Your task to perform on an android device: Open Chrome and go to settings Image 0: 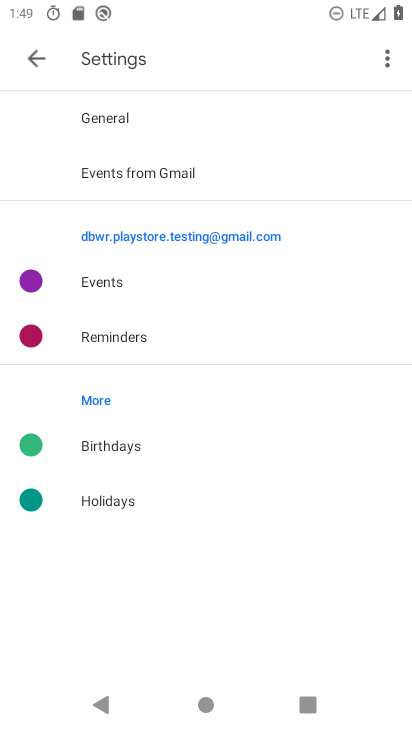
Step 0: press home button
Your task to perform on an android device: Open Chrome and go to settings Image 1: 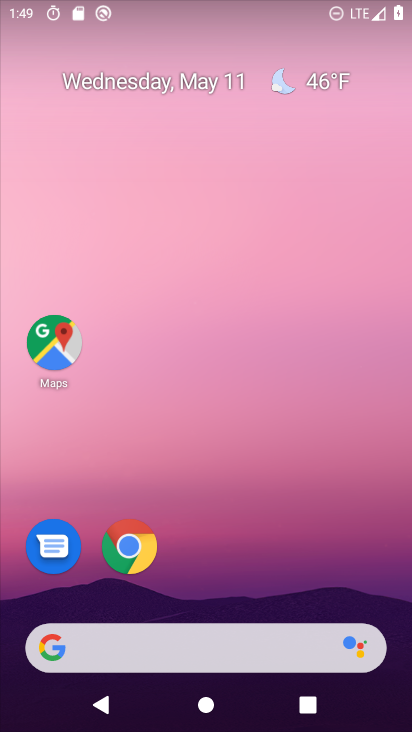
Step 1: drag from (270, 676) to (204, 353)
Your task to perform on an android device: Open Chrome and go to settings Image 2: 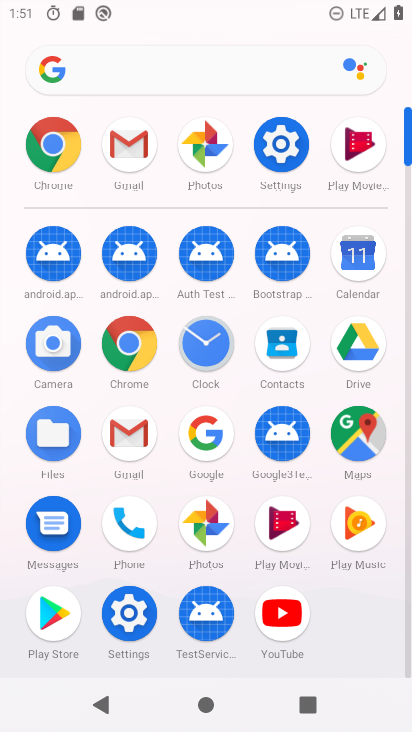
Step 2: click (277, 154)
Your task to perform on an android device: Open Chrome and go to settings Image 3: 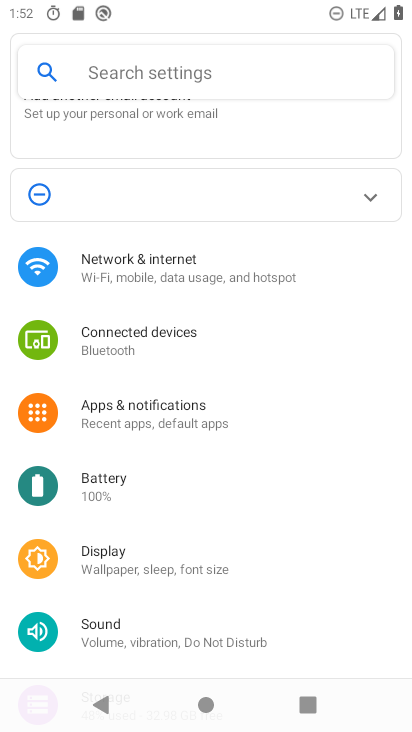
Step 3: press home button
Your task to perform on an android device: Open Chrome and go to settings Image 4: 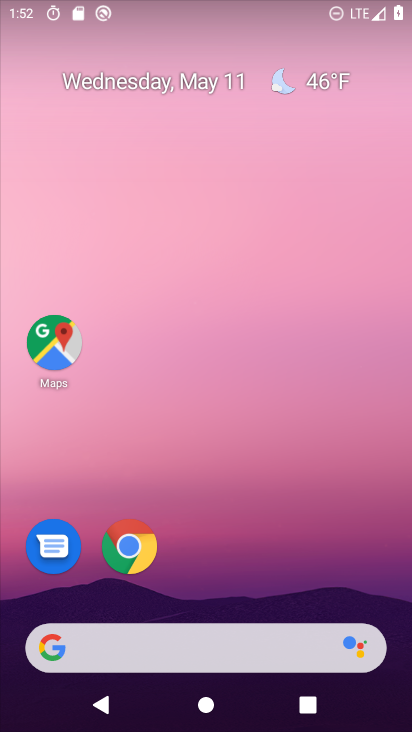
Step 4: drag from (239, 674) to (199, 270)
Your task to perform on an android device: Open Chrome and go to settings Image 5: 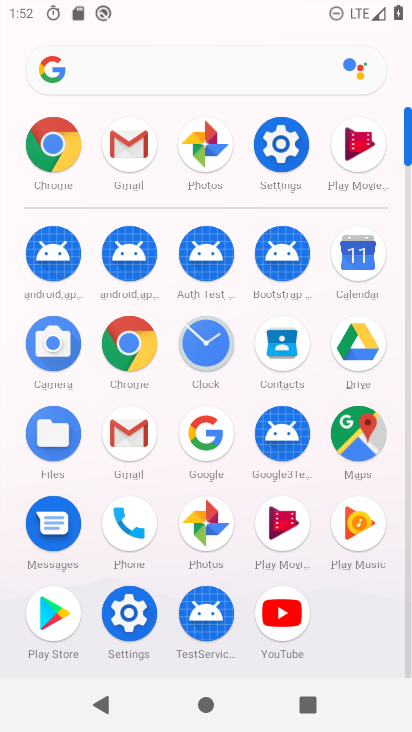
Step 5: click (123, 347)
Your task to perform on an android device: Open Chrome and go to settings Image 6: 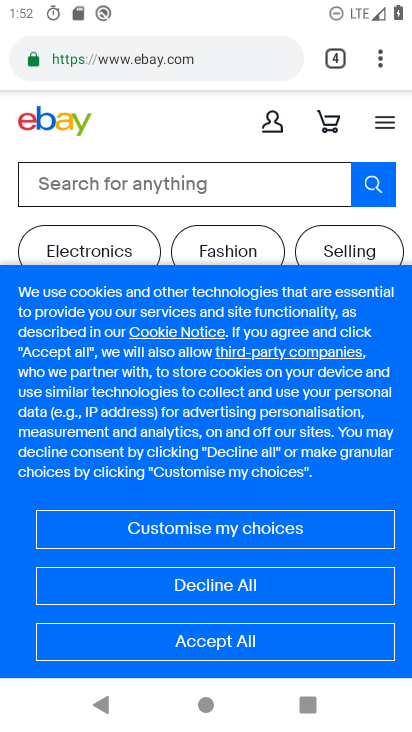
Step 6: click (376, 59)
Your task to perform on an android device: Open Chrome and go to settings Image 7: 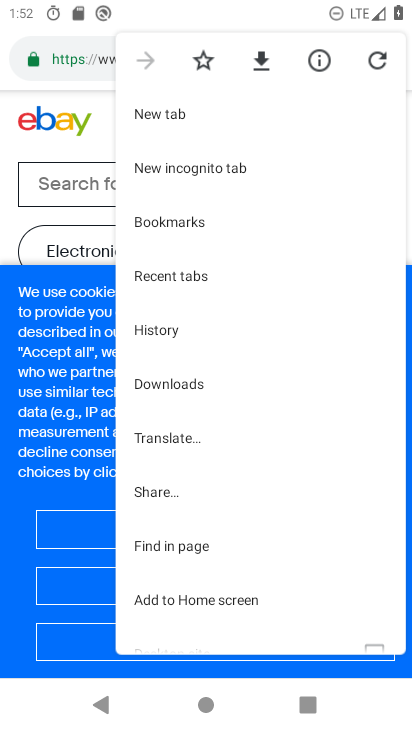
Step 7: drag from (240, 597) to (208, 460)
Your task to perform on an android device: Open Chrome and go to settings Image 8: 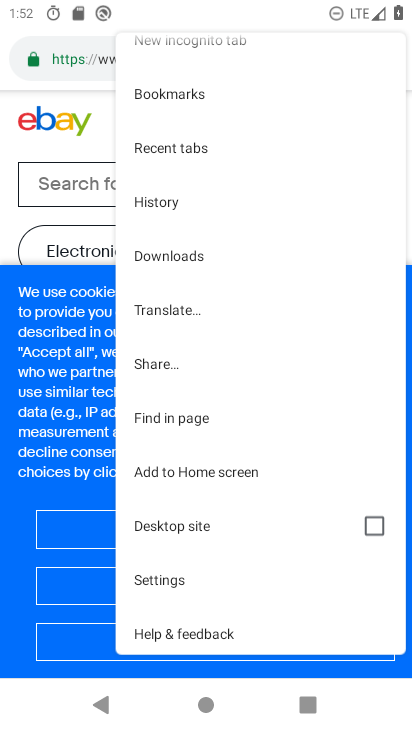
Step 8: click (205, 592)
Your task to perform on an android device: Open Chrome and go to settings Image 9: 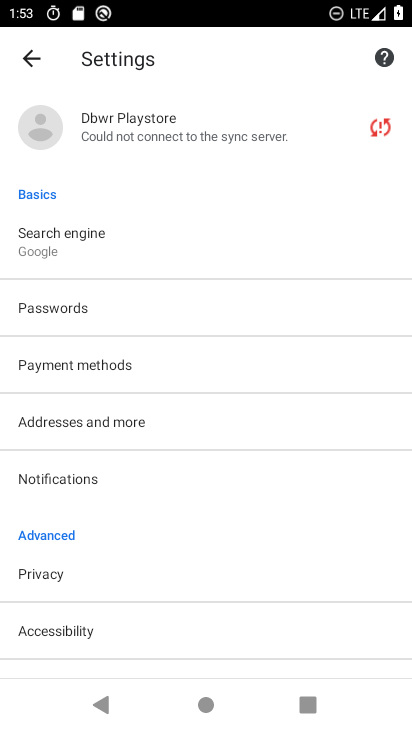
Step 9: task complete